Your task to perform on an android device: Open location settings Image 0: 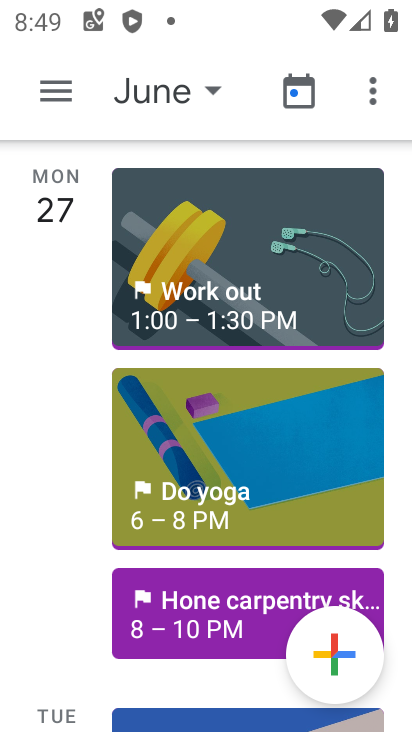
Step 0: press home button
Your task to perform on an android device: Open location settings Image 1: 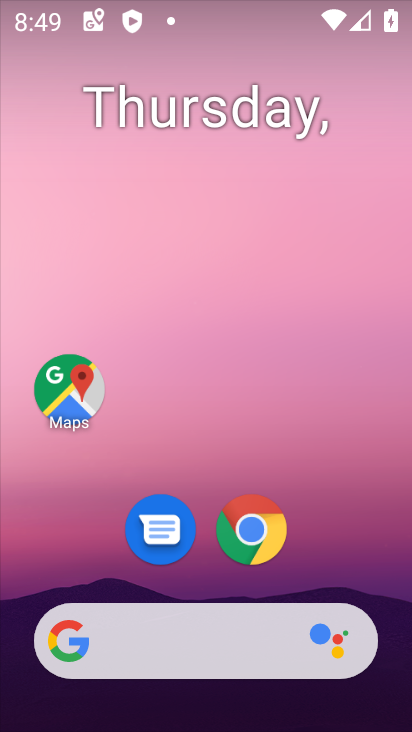
Step 1: drag from (215, 721) to (235, 78)
Your task to perform on an android device: Open location settings Image 2: 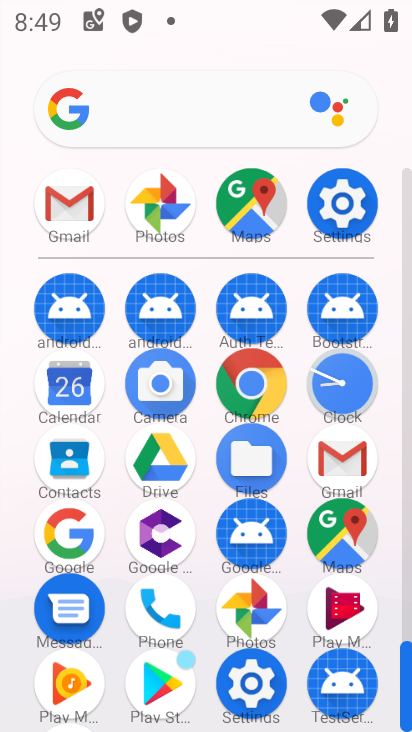
Step 2: click (344, 193)
Your task to perform on an android device: Open location settings Image 3: 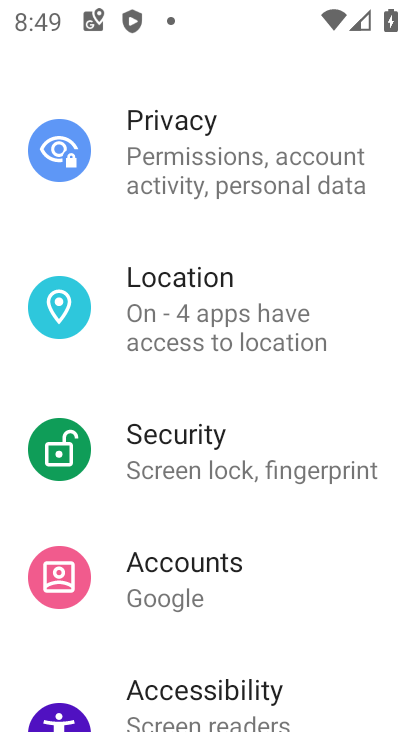
Step 3: click (159, 313)
Your task to perform on an android device: Open location settings Image 4: 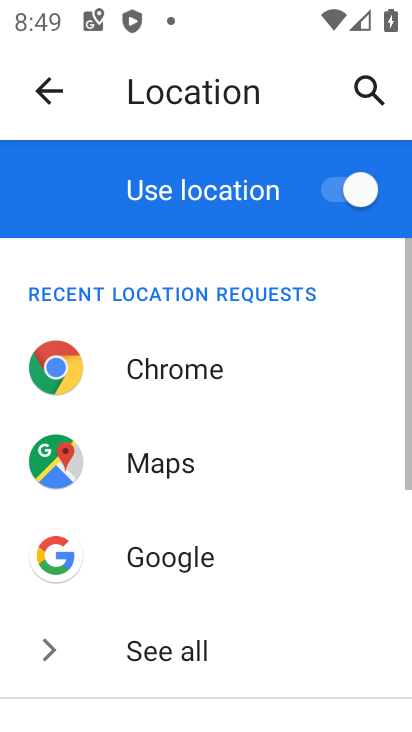
Step 4: task complete